Your task to perform on an android device: What is the recent news? Image 0: 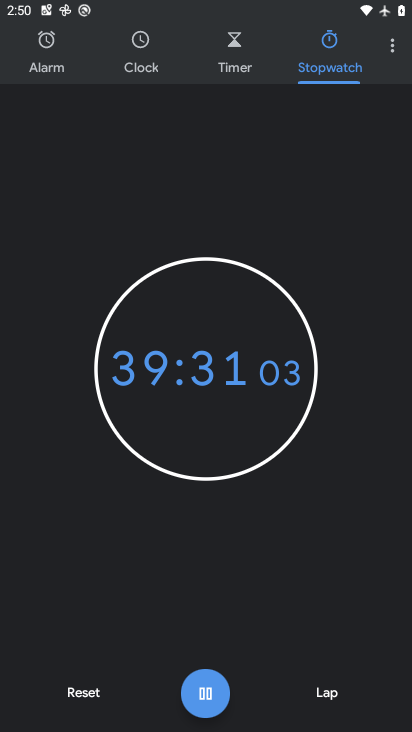
Step 0: press home button
Your task to perform on an android device: What is the recent news? Image 1: 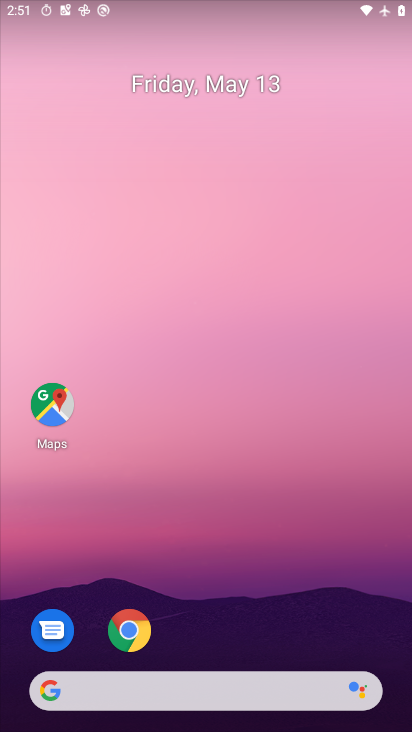
Step 1: drag from (242, 613) to (320, 240)
Your task to perform on an android device: What is the recent news? Image 2: 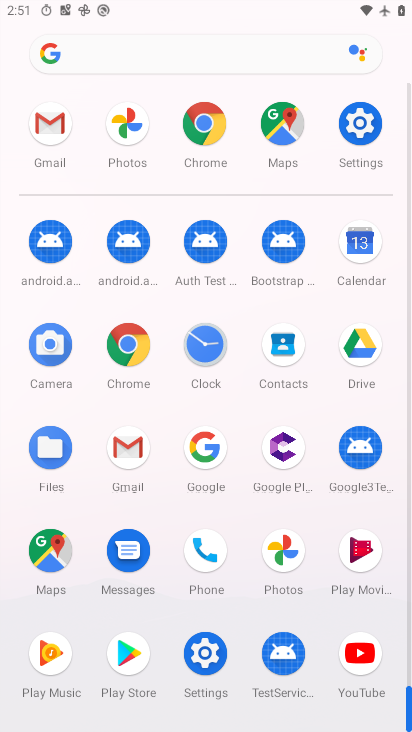
Step 2: click (201, 445)
Your task to perform on an android device: What is the recent news? Image 3: 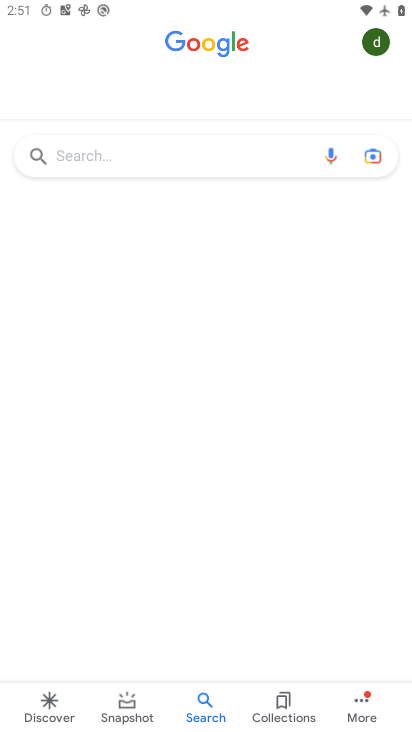
Step 3: click (40, 713)
Your task to perform on an android device: What is the recent news? Image 4: 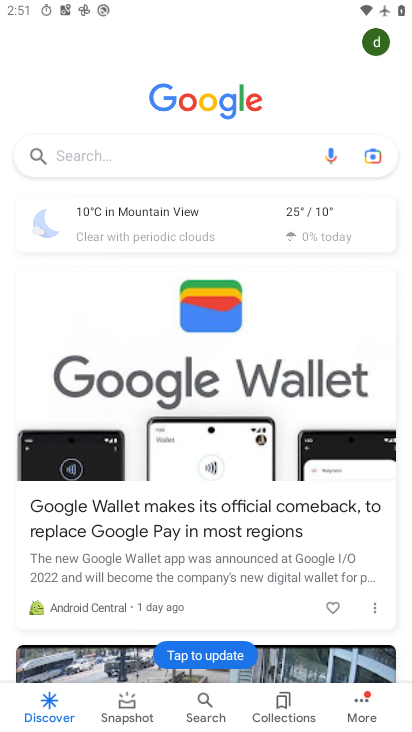
Step 4: task complete